Your task to perform on an android device: When is my next meeting? Image 0: 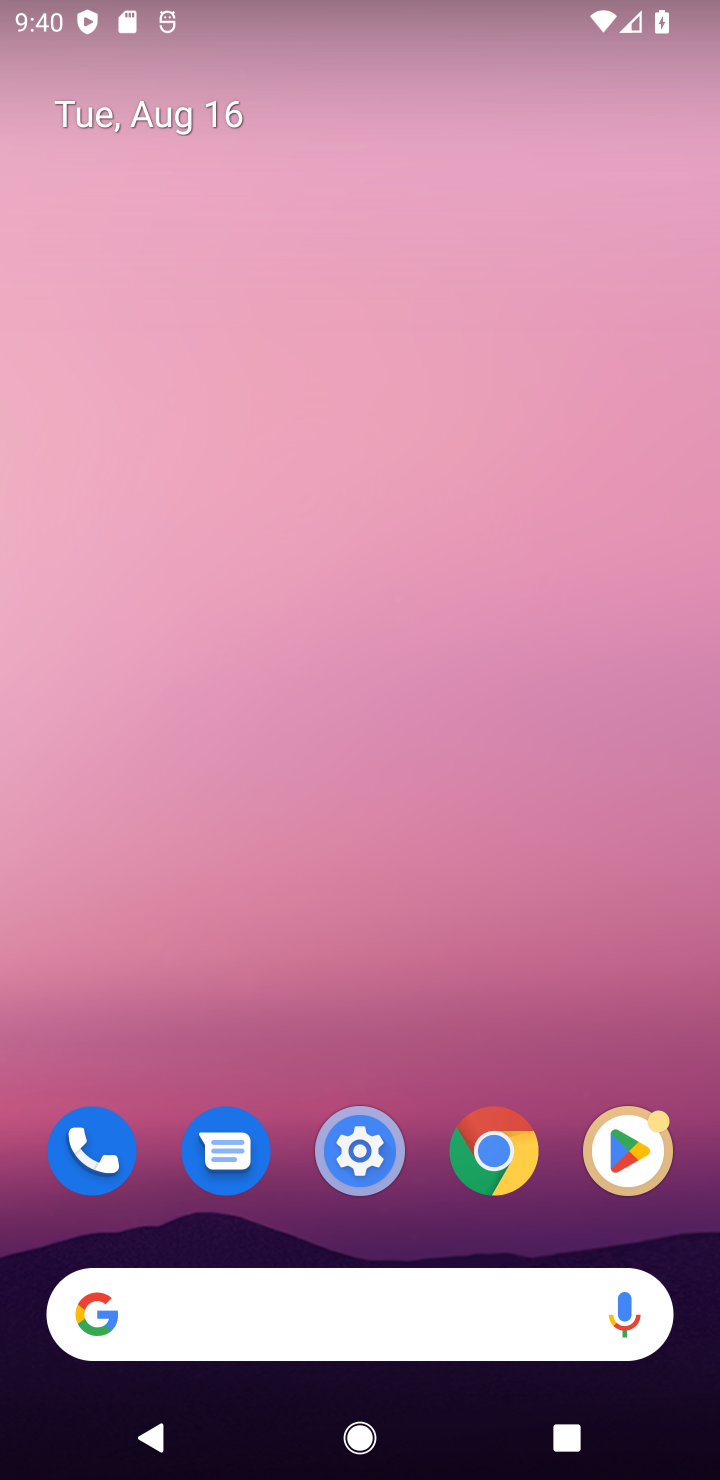
Step 0: drag from (366, 1232) to (384, 12)
Your task to perform on an android device: When is my next meeting? Image 1: 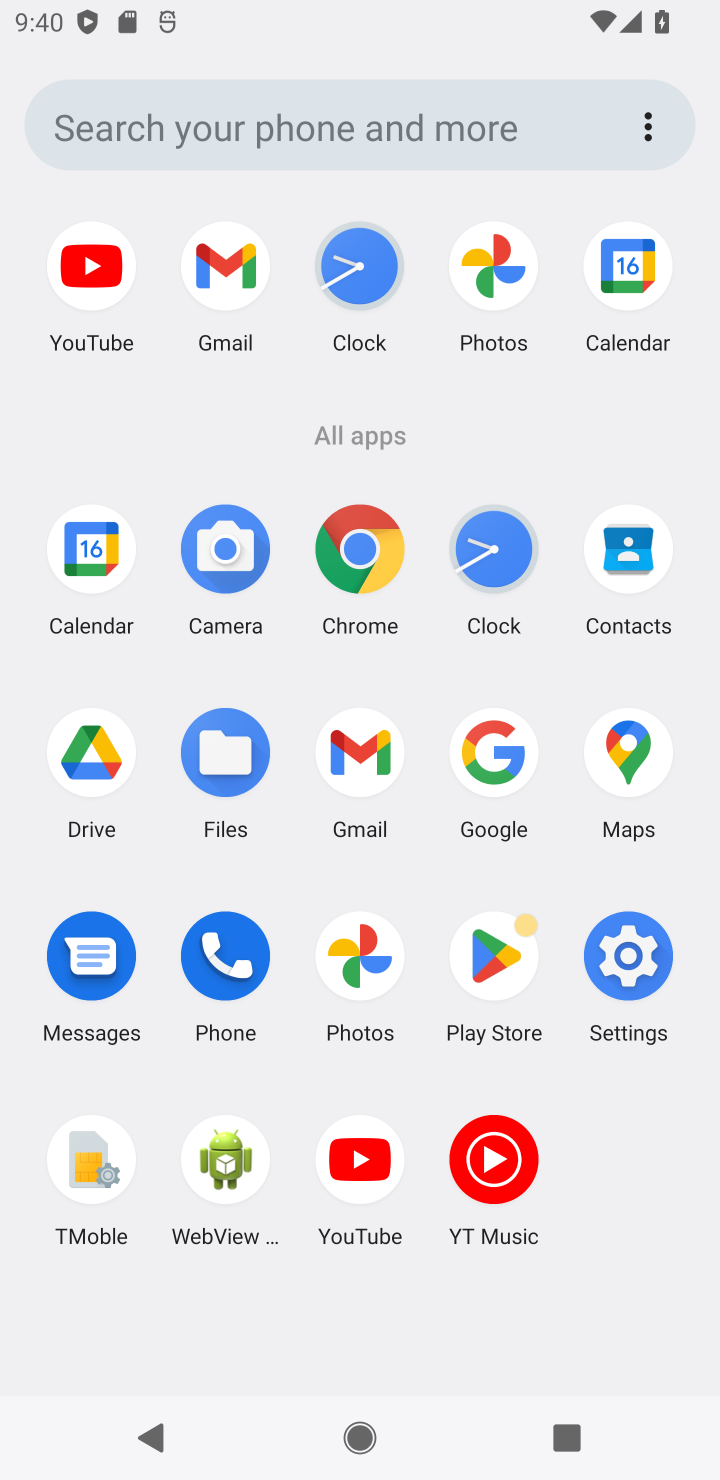
Step 1: click (101, 578)
Your task to perform on an android device: When is my next meeting? Image 2: 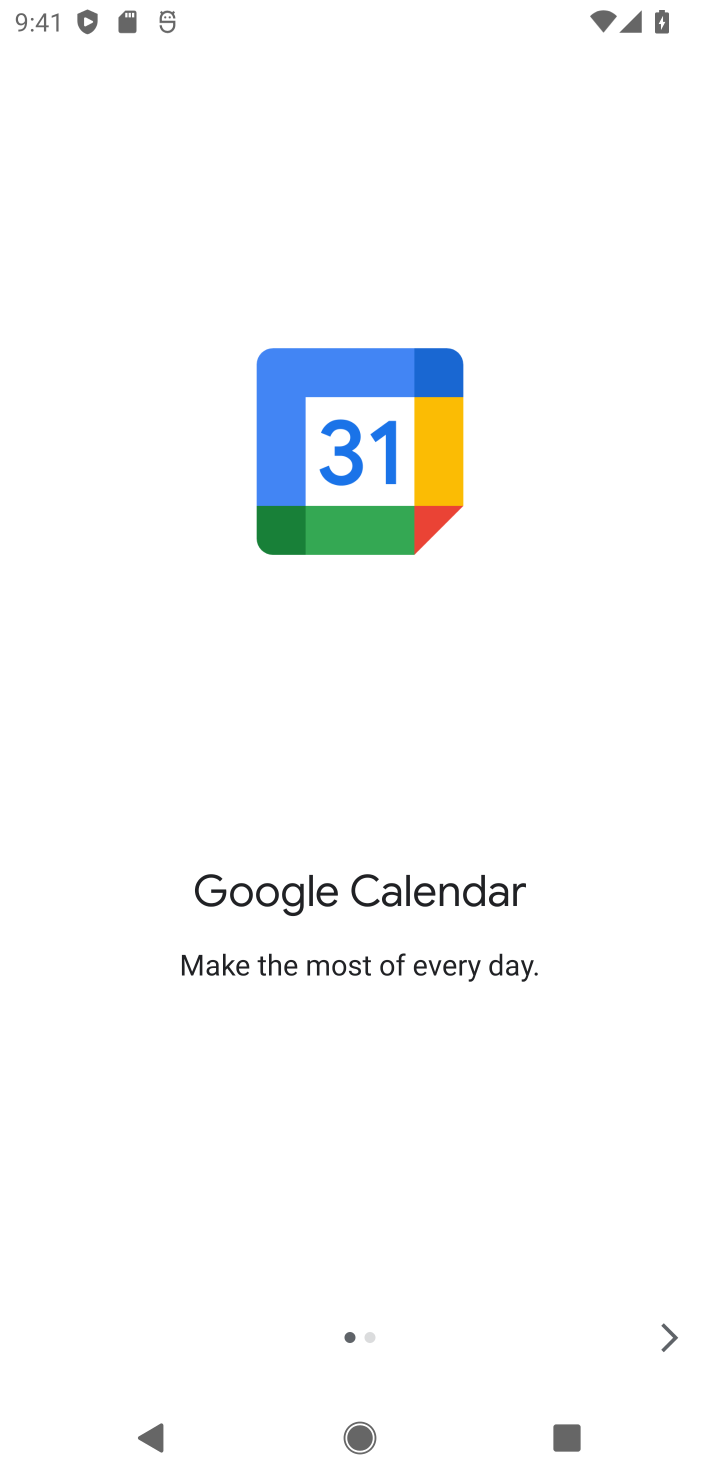
Step 2: click (681, 1328)
Your task to perform on an android device: When is my next meeting? Image 3: 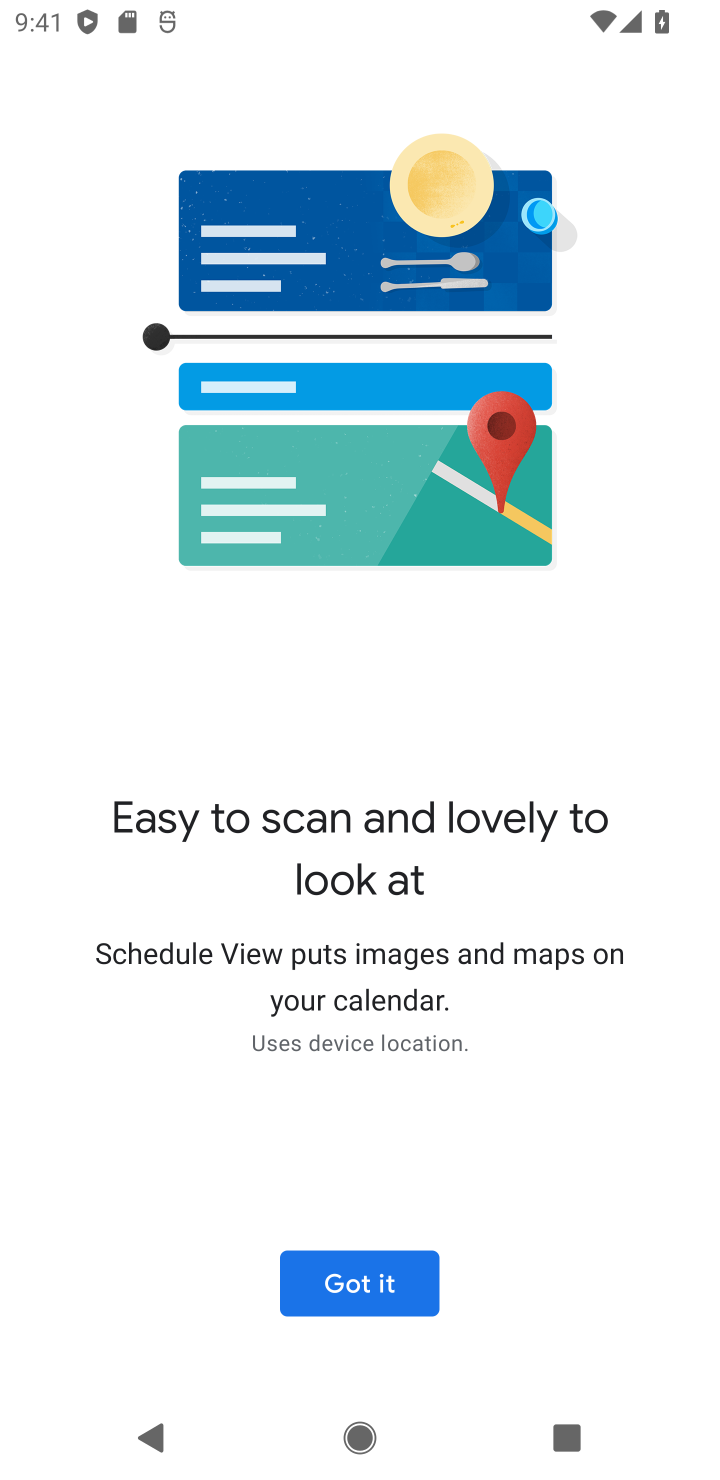
Step 3: click (325, 1289)
Your task to perform on an android device: When is my next meeting? Image 4: 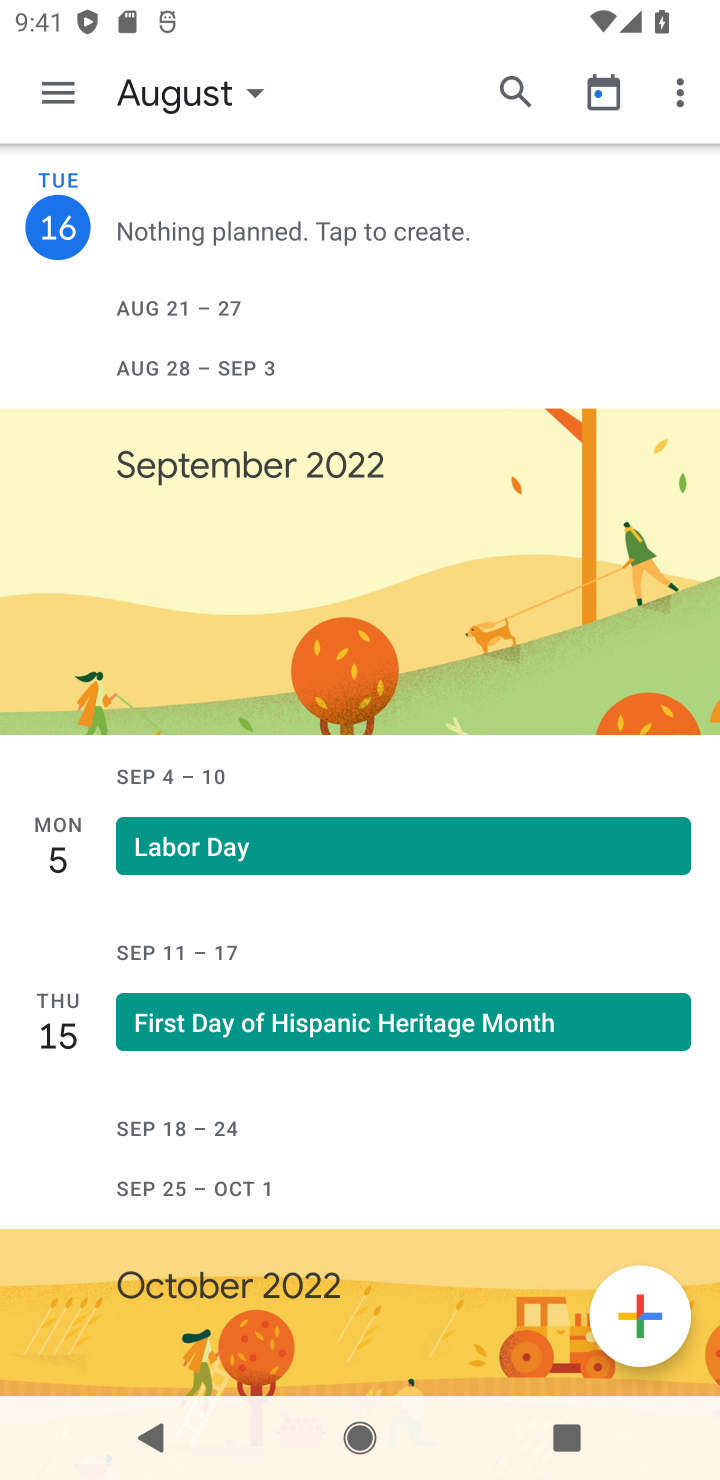
Step 4: click (313, 298)
Your task to perform on an android device: When is my next meeting? Image 5: 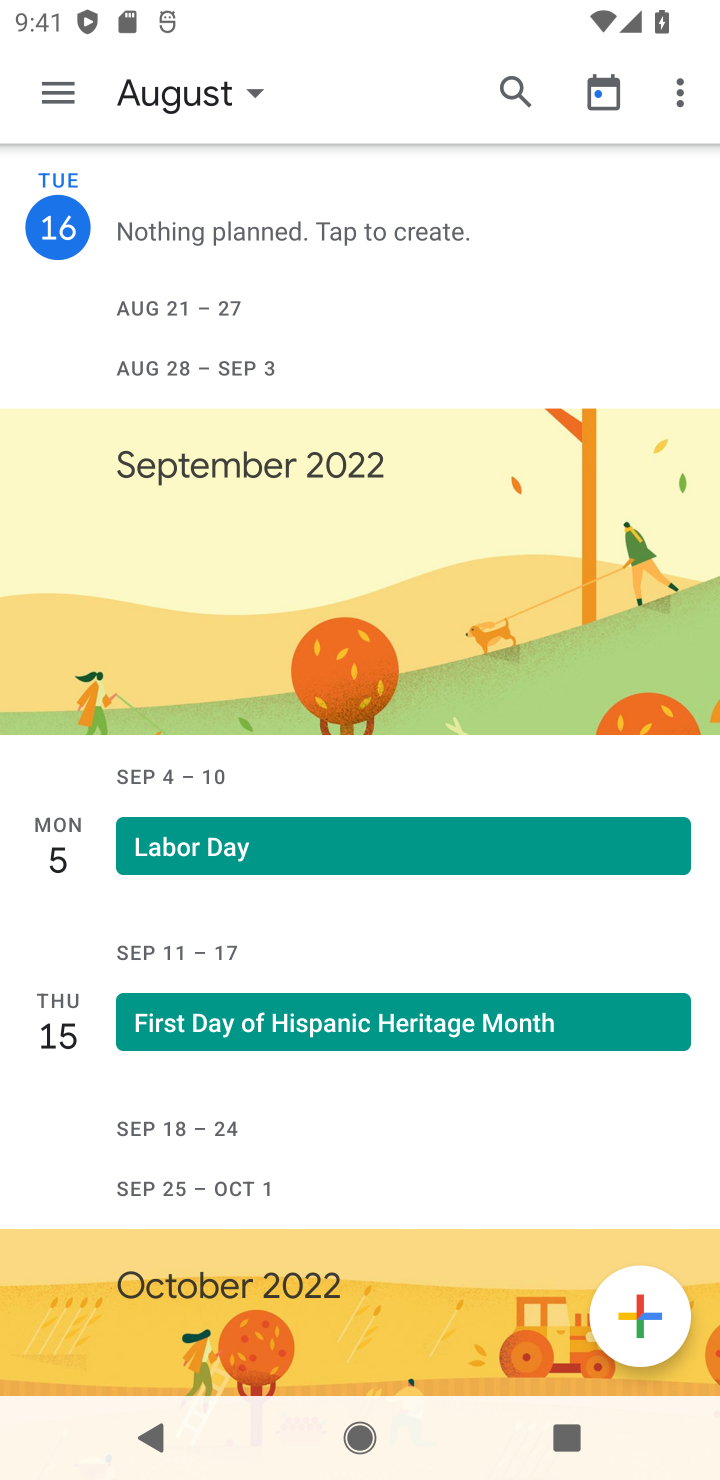
Step 5: click (66, 99)
Your task to perform on an android device: When is my next meeting? Image 6: 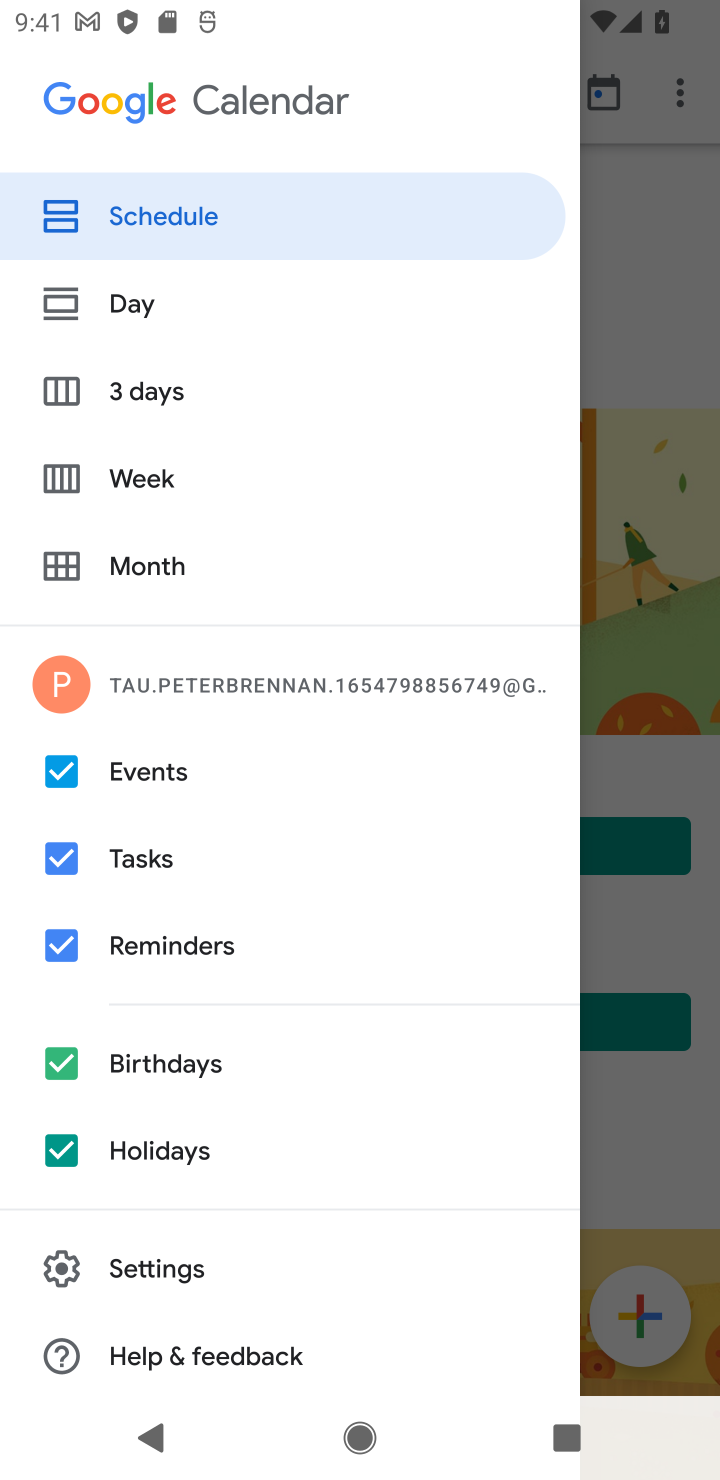
Step 6: click (243, 217)
Your task to perform on an android device: When is my next meeting? Image 7: 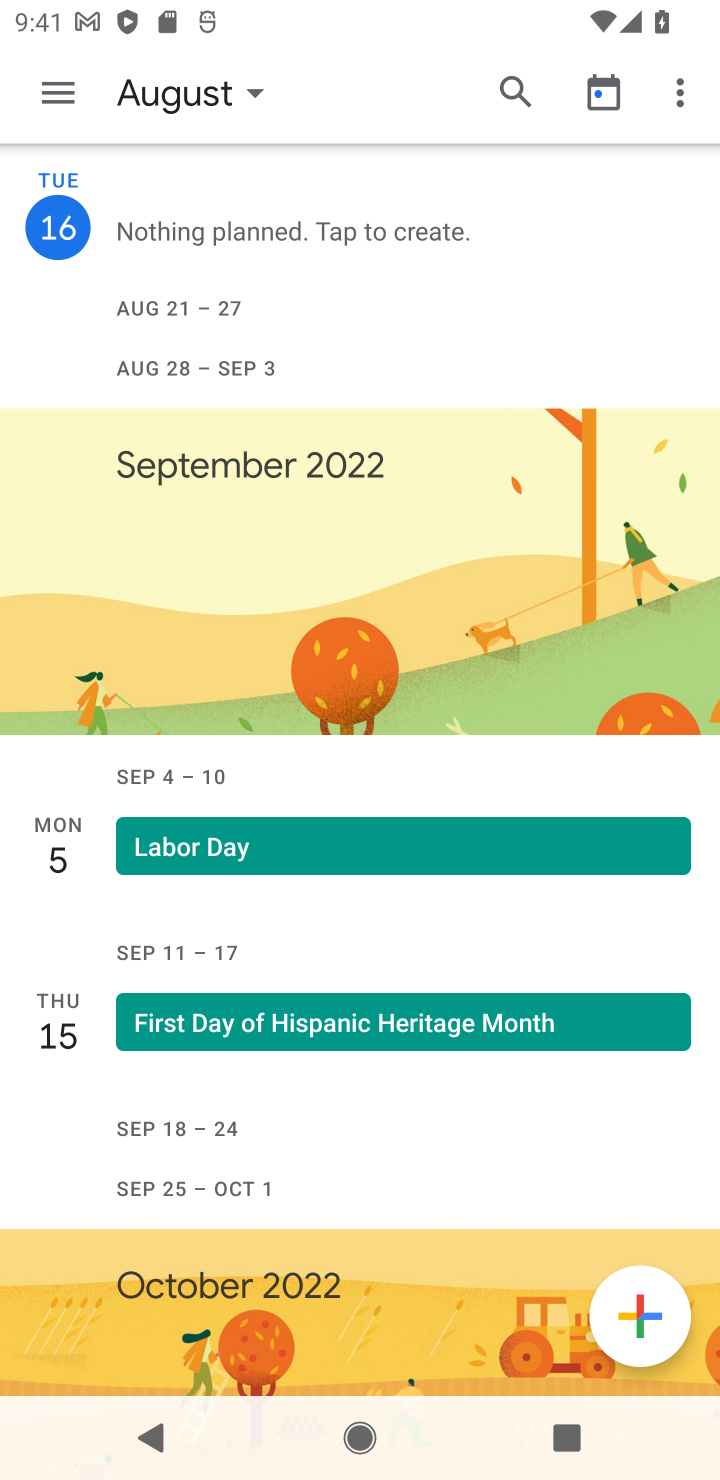
Step 7: drag from (292, 952) to (294, 17)
Your task to perform on an android device: When is my next meeting? Image 8: 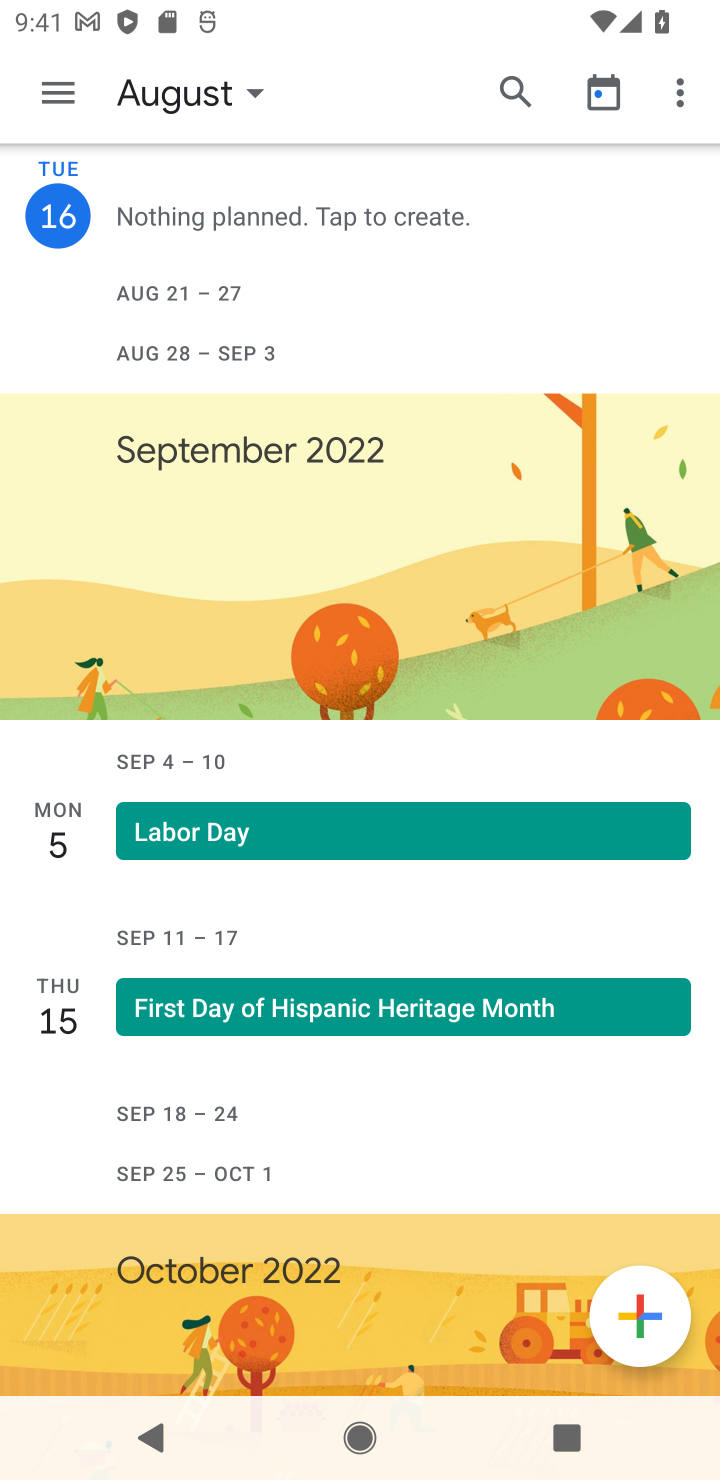
Step 8: drag from (433, 1088) to (418, 163)
Your task to perform on an android device: When is my next meeting? Image 9: 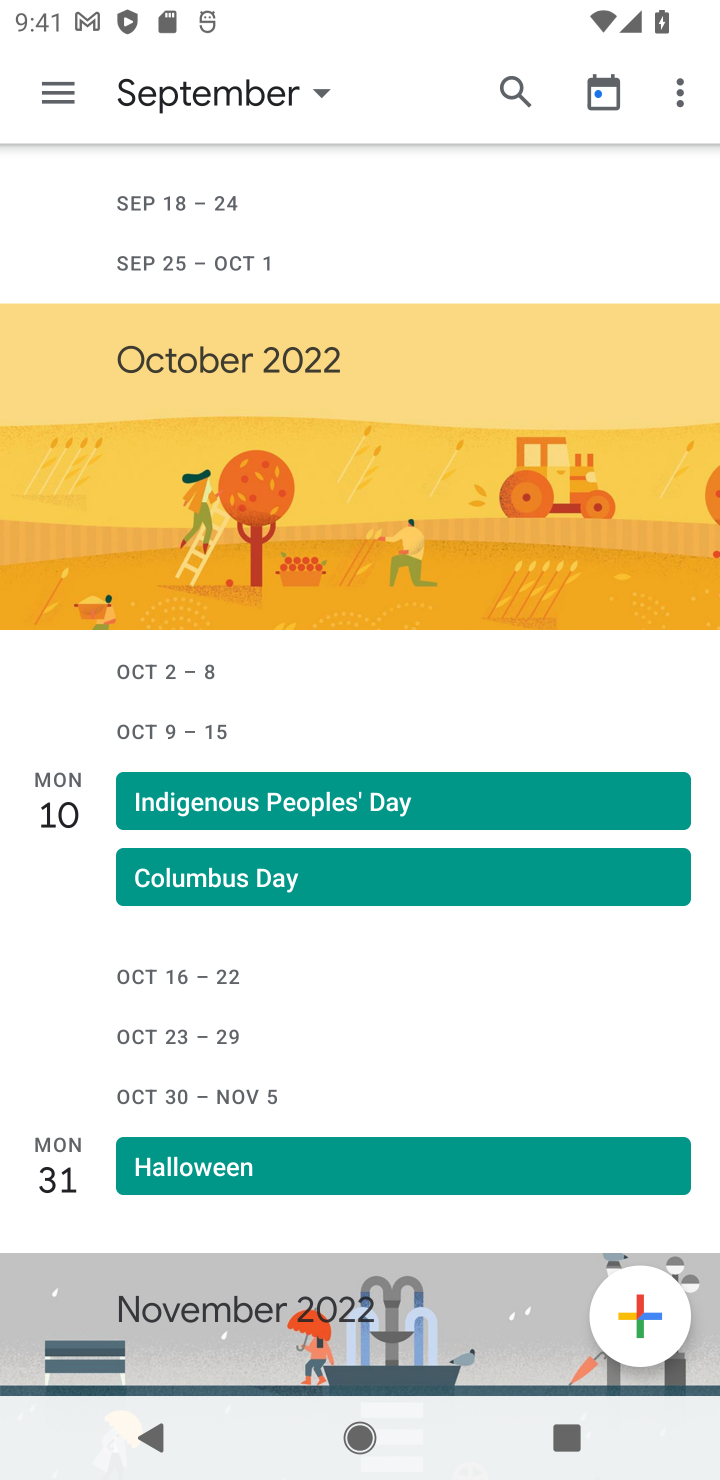
Step 9: click (338, 421)
Your task to perform on an android device: When is my next meeting? Image 10: 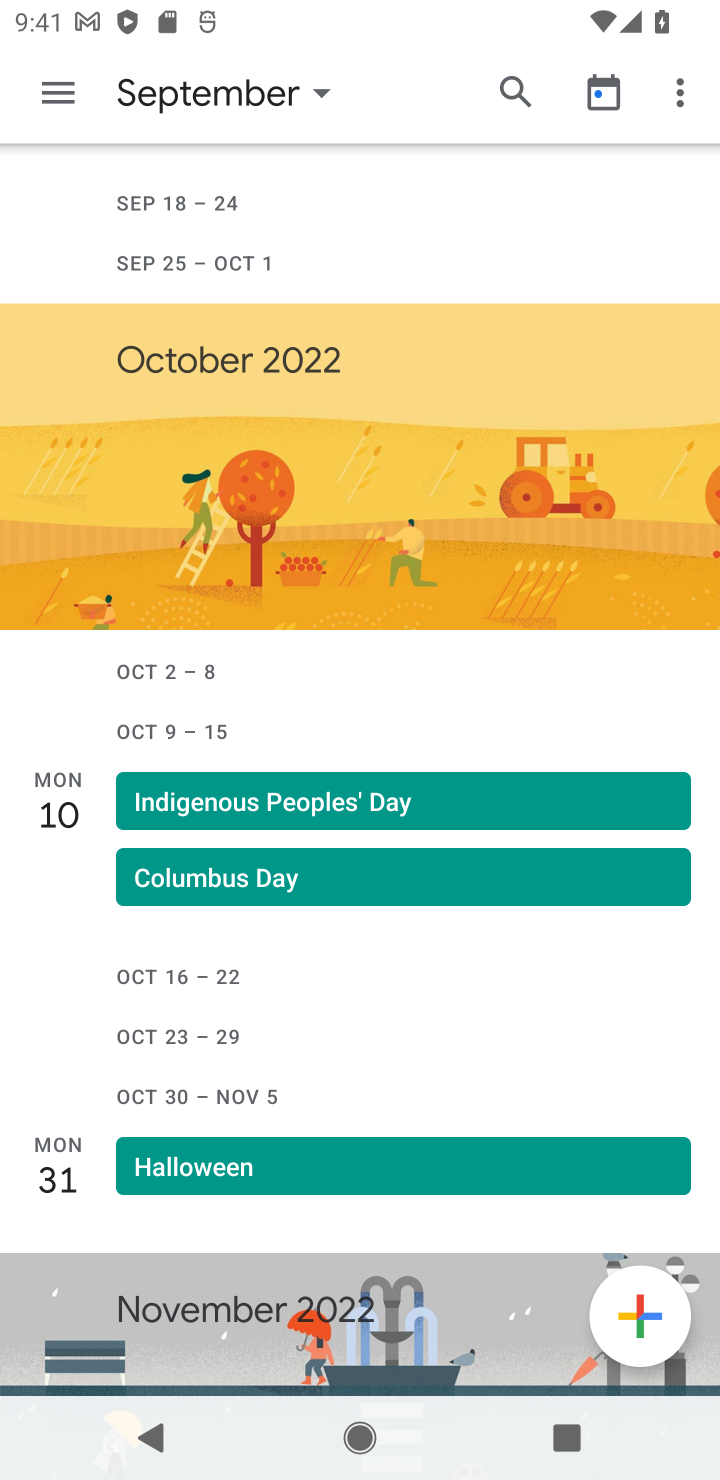
Step 10: click (268, 668)
Your task to perform on an android device: When is my next meeting? Image 11: 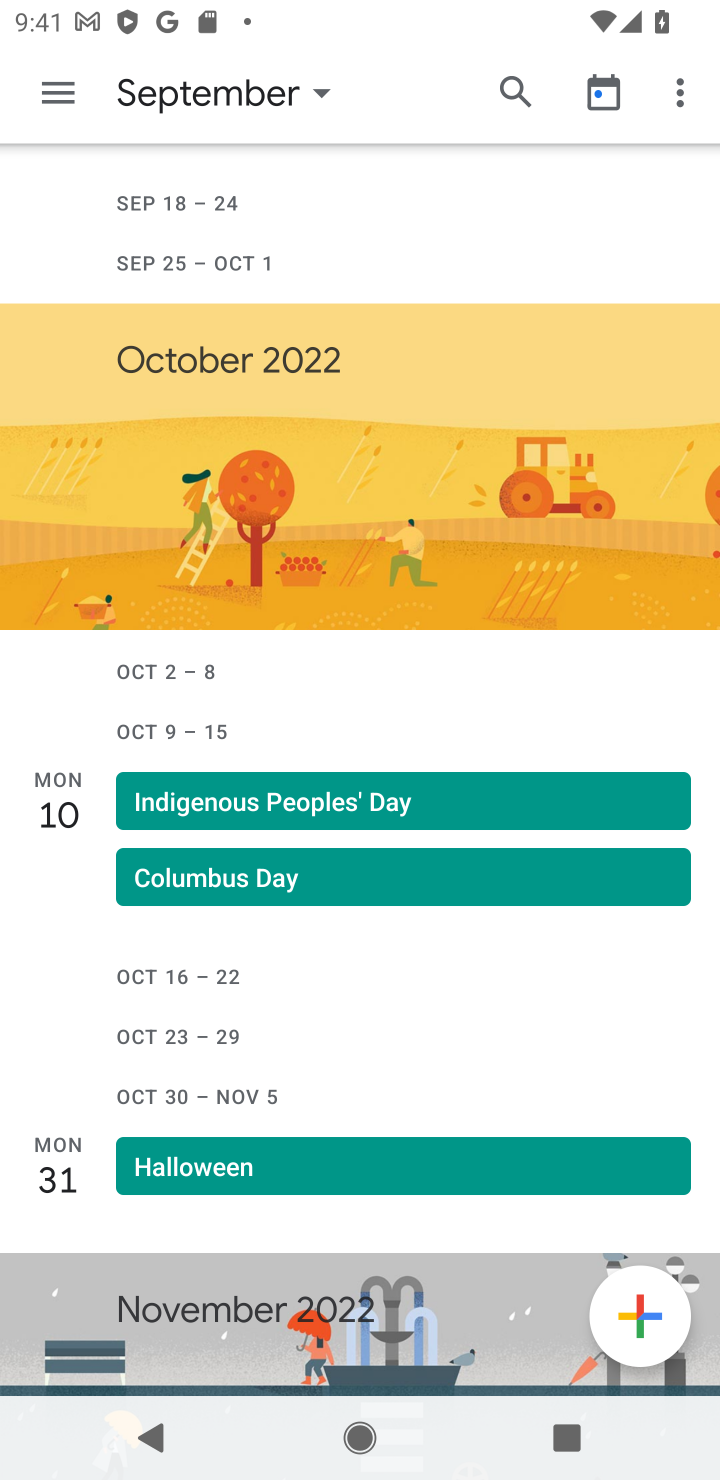
Step 11: task complete